Your task to perform on an android device: open chrome privacy settings Image 0: 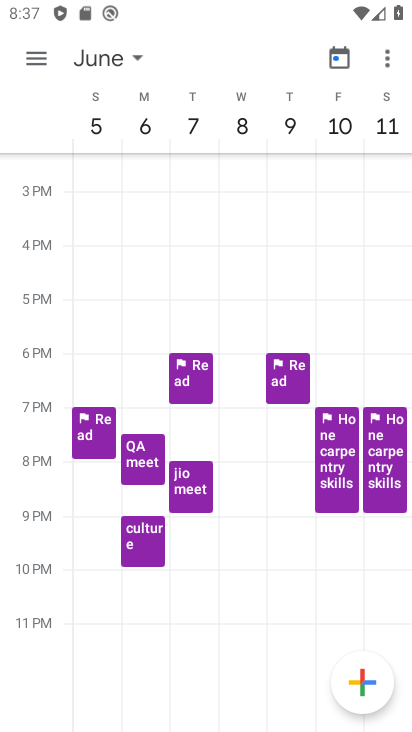
Step 0: press home button
Your task to perform on an android device: open chrome privacy settings Image 1: 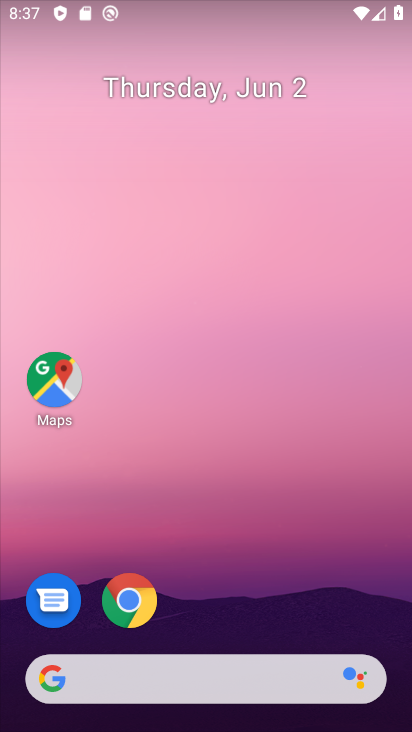
Step 1: drag from (198, 625) to (246, 153)
Your task to perform on an android device: open chrome privacy settings Image 2: 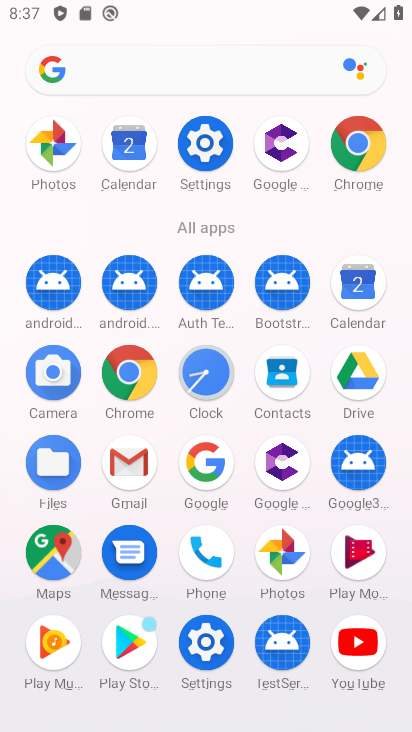
Step 2: click (369, 155)
Your task to perform on an android device: open chrome privacy settings Image 3: 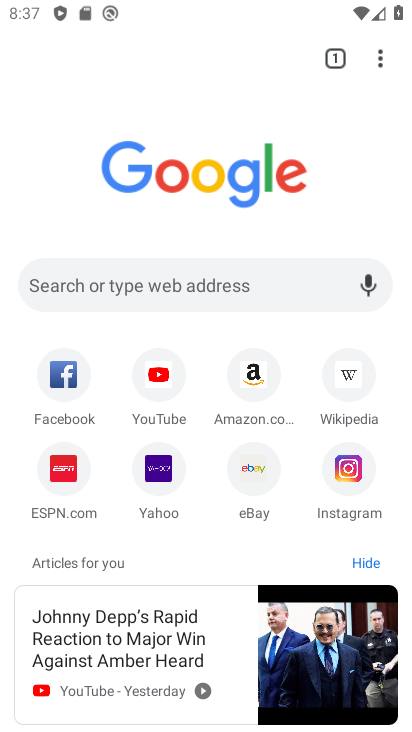
Step 3: click (378, 51)
Your task to perform on an android device: open chrome privacy settings Image 4: 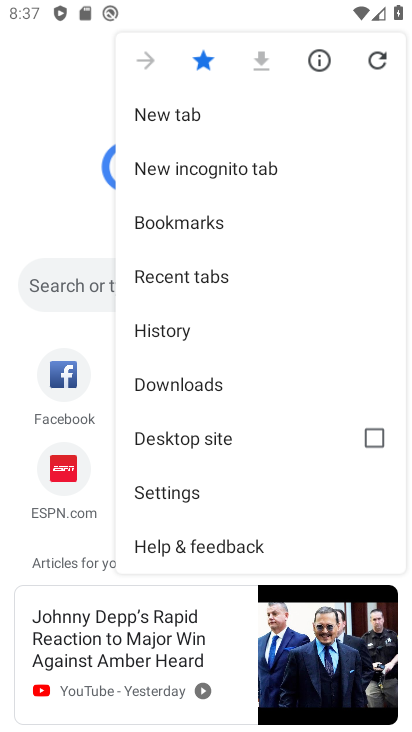
Step 4: click (173, 497)
Your task to perform on an android device: open chrome privacy settings Image 5: 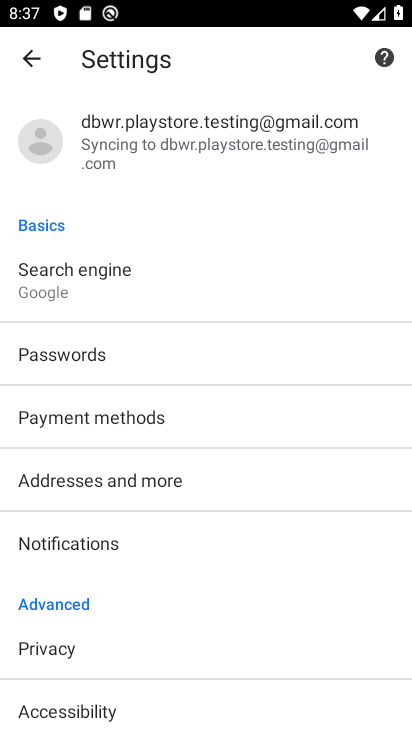
Step 5: click (137, 647)
Your task to perform on an android device: open chrome privacy settings Image 6: 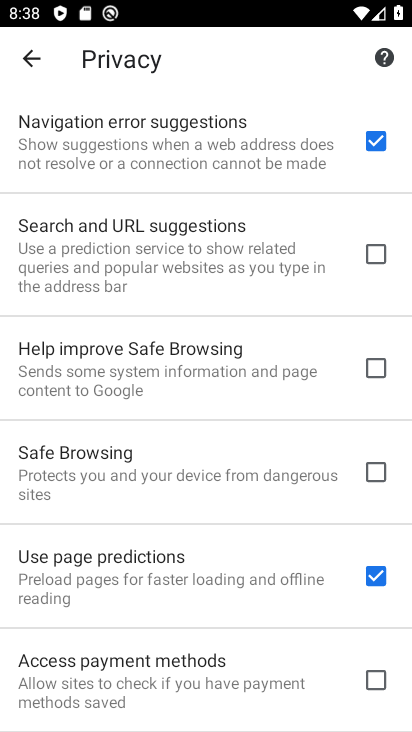
Step 6: task complete